Your task to perform on an android device: turn on showing notifications on the lock screen Image 0: 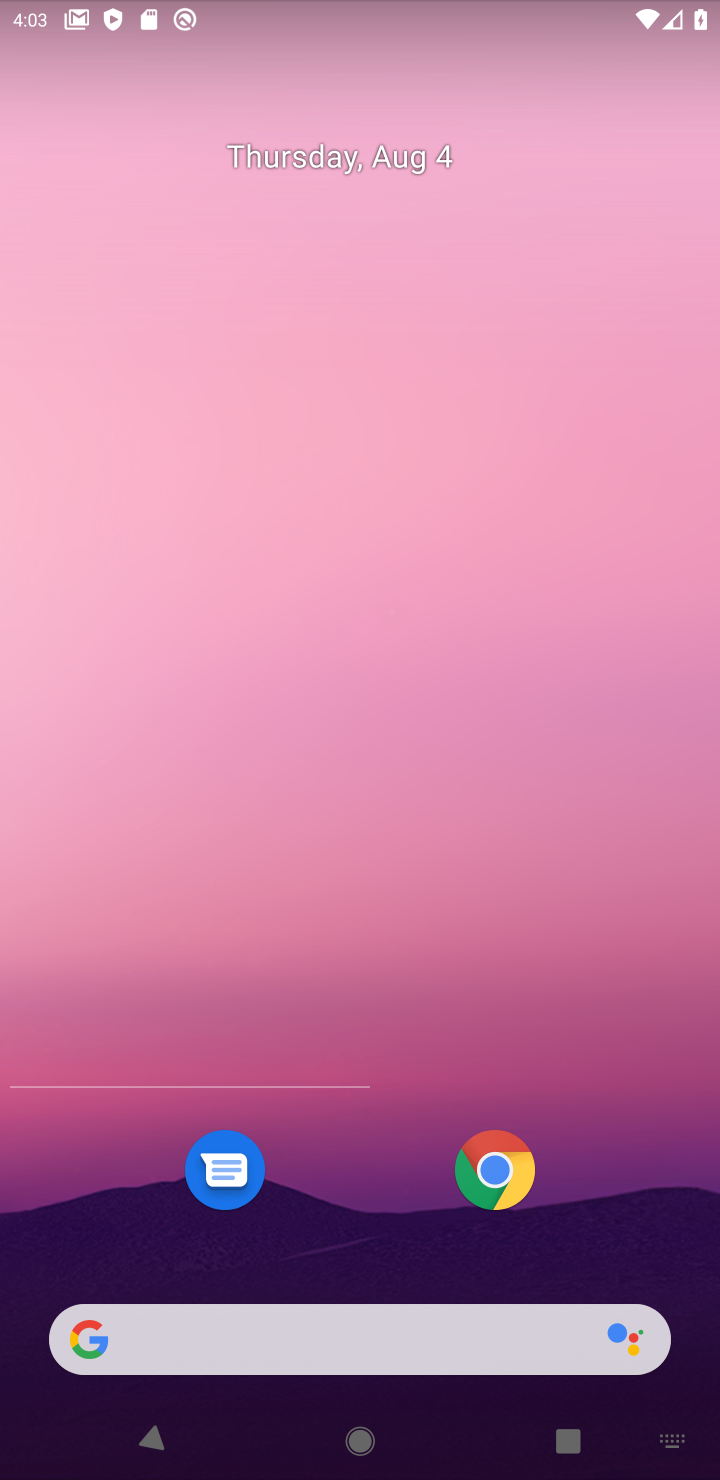
Step 0: click (553, 16)
Your task to perform on an android device: turn on showing notifications on the lock screen Image 1: 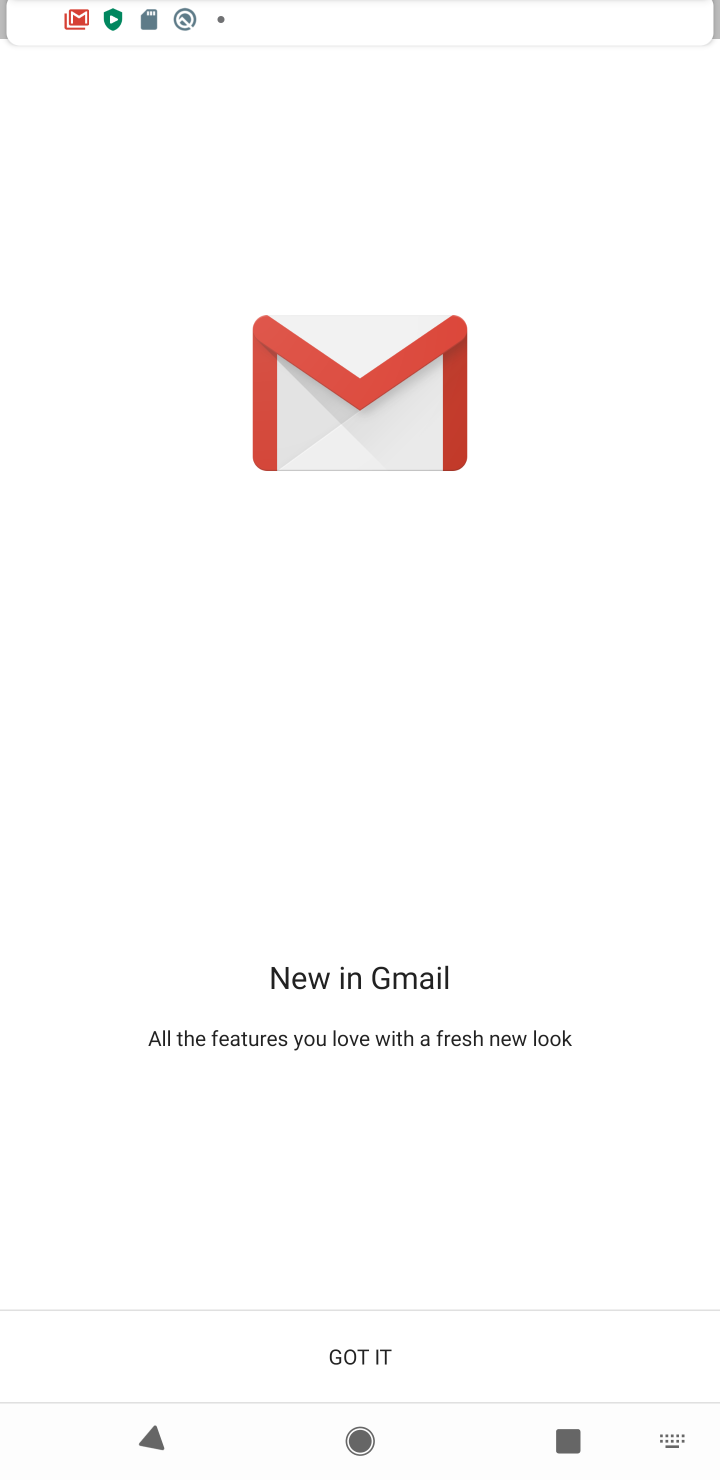
Step 1: press home button
Your task to perform on an android device: turn on showing notifications on the lock screen Image 2: 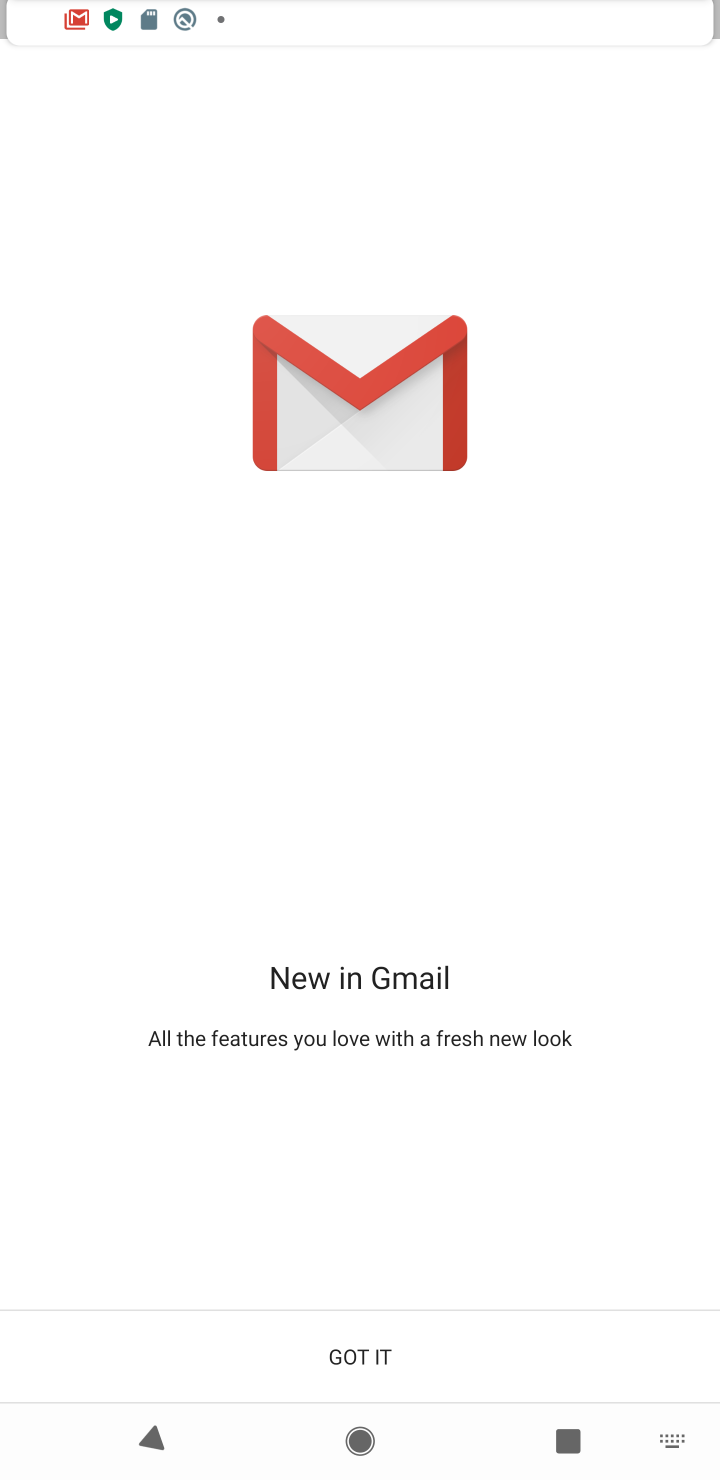
Step 2: drag from (553, 16) to (662, 1178)
Your task to perform on an android device: turn on showing notifications on the lock screen Image 3: 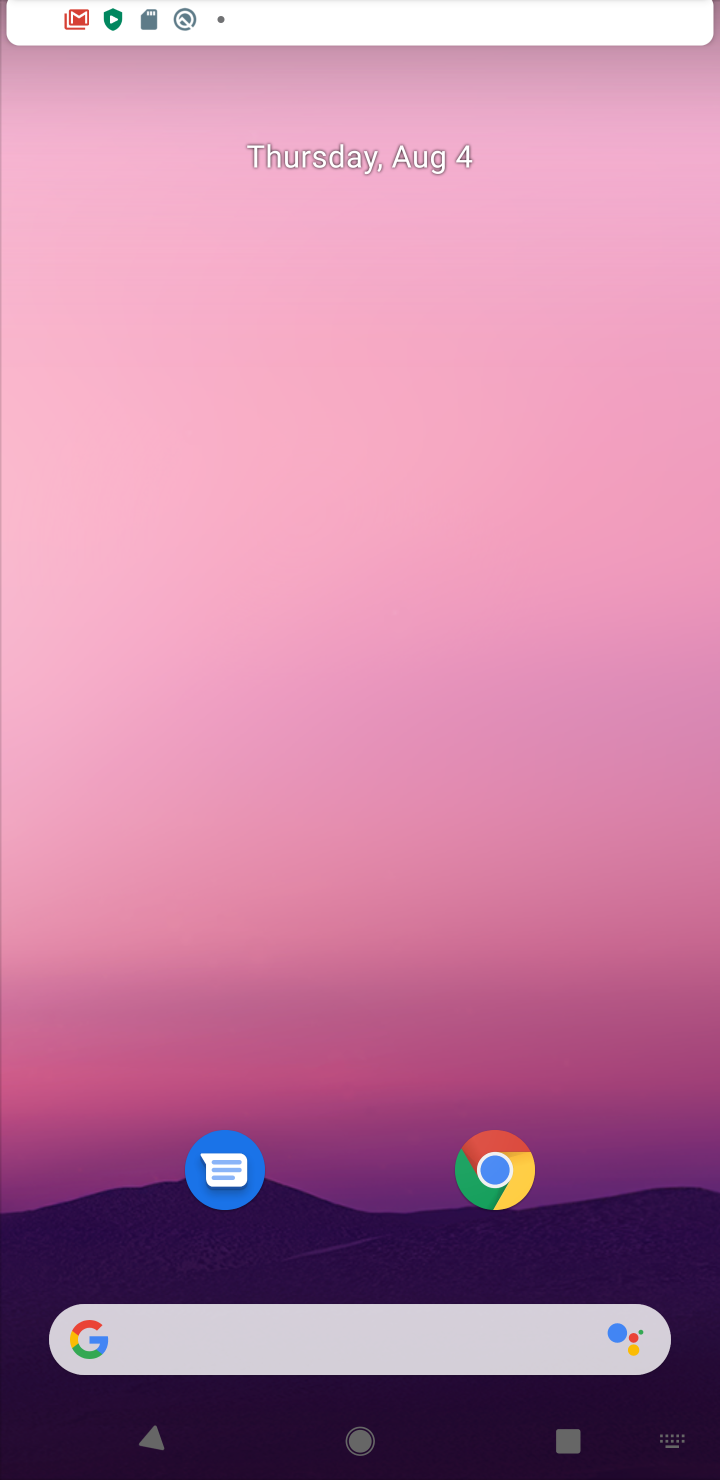
Step 3: drag from (592, 1191) to (429, 220)
Your task to perform on an android device: turn on showing notifications on the lock screen Image 4: 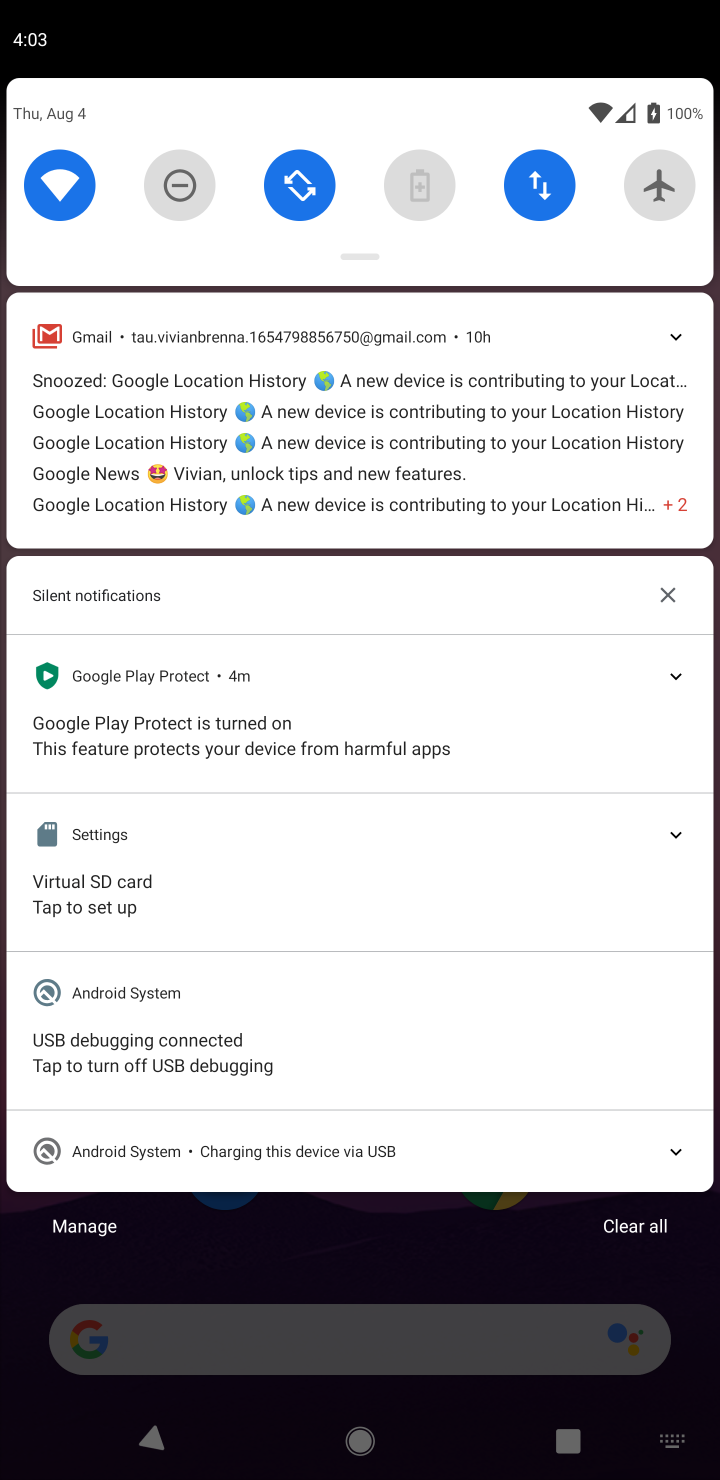
Step 4: press back button
Your task to perform on an android device: turn on showing notifications on the lock screen Image 5: 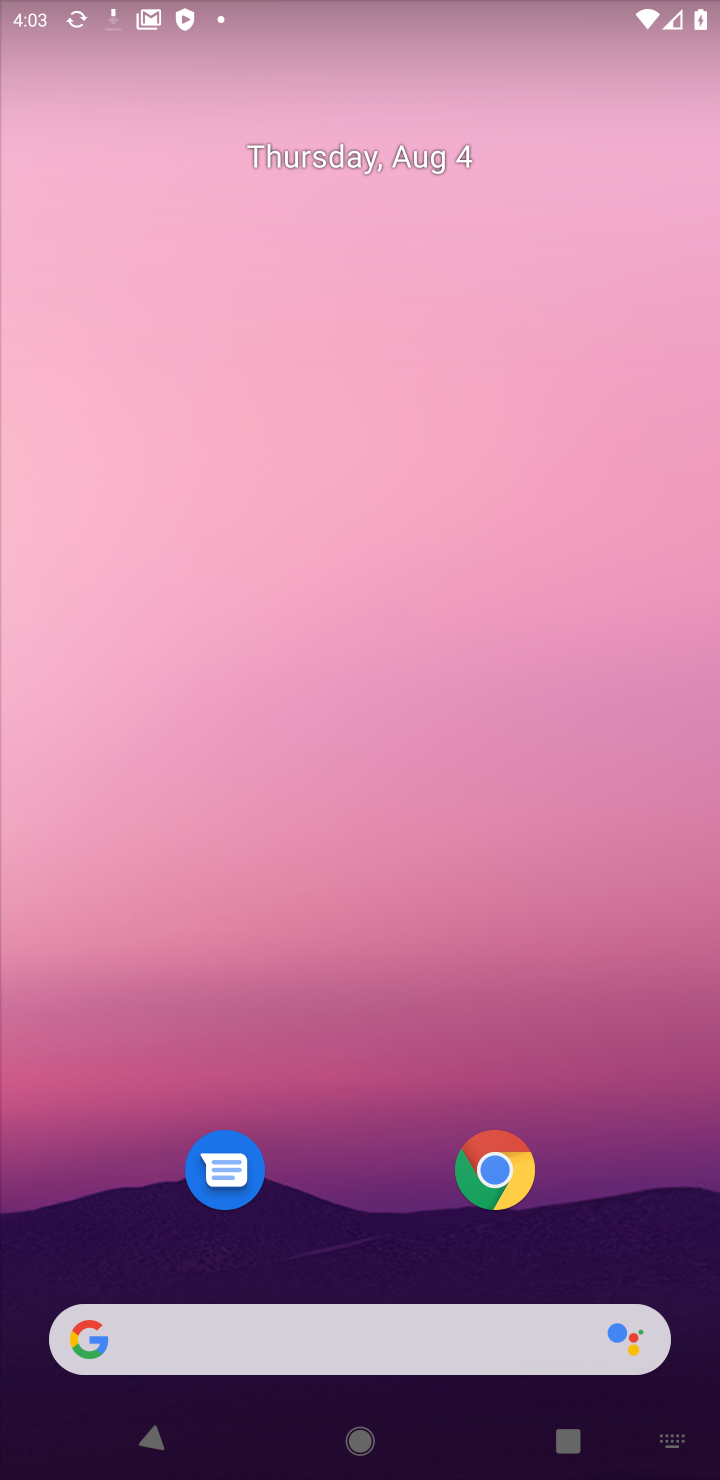
Step 5: drag from (609, 1161) to (476, 0)
Your task to perform on an android device: turn on showing notifications on the lock screen Image 6: 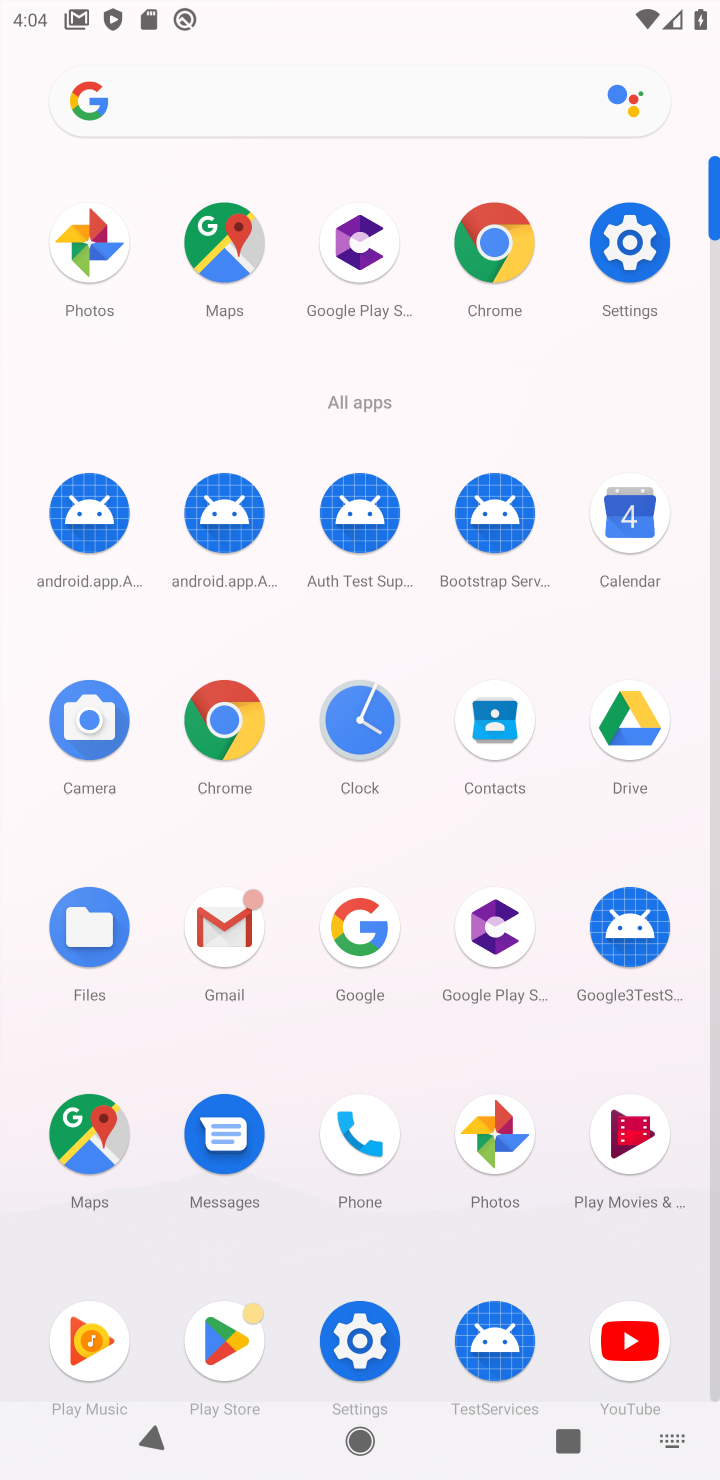
Step 6: click (651, 252)
Your task to perform on an android device: turn on showing notifications on the lock screen Image 7: 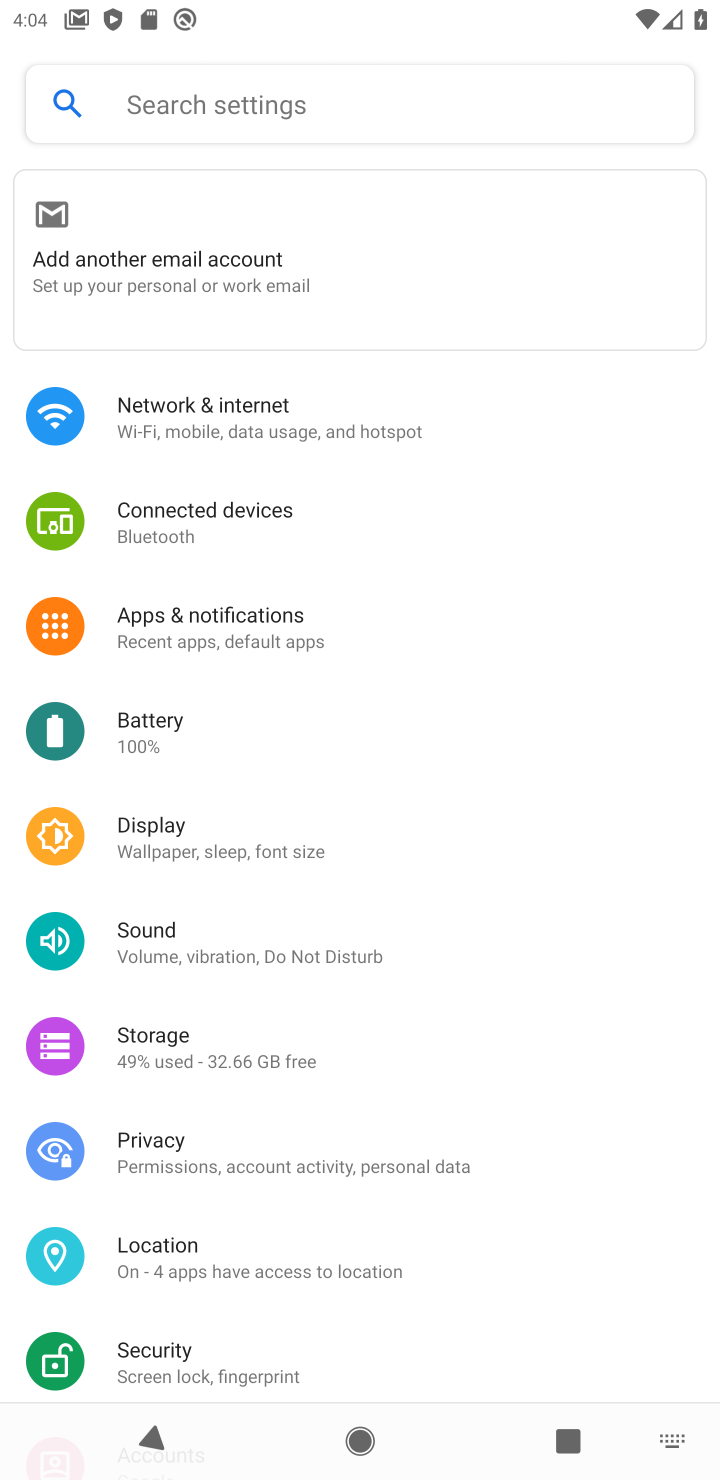
Step 7: click (371, 612)
Your task to perform on an android device: turn on showing notifications on the lock screen Image 8: 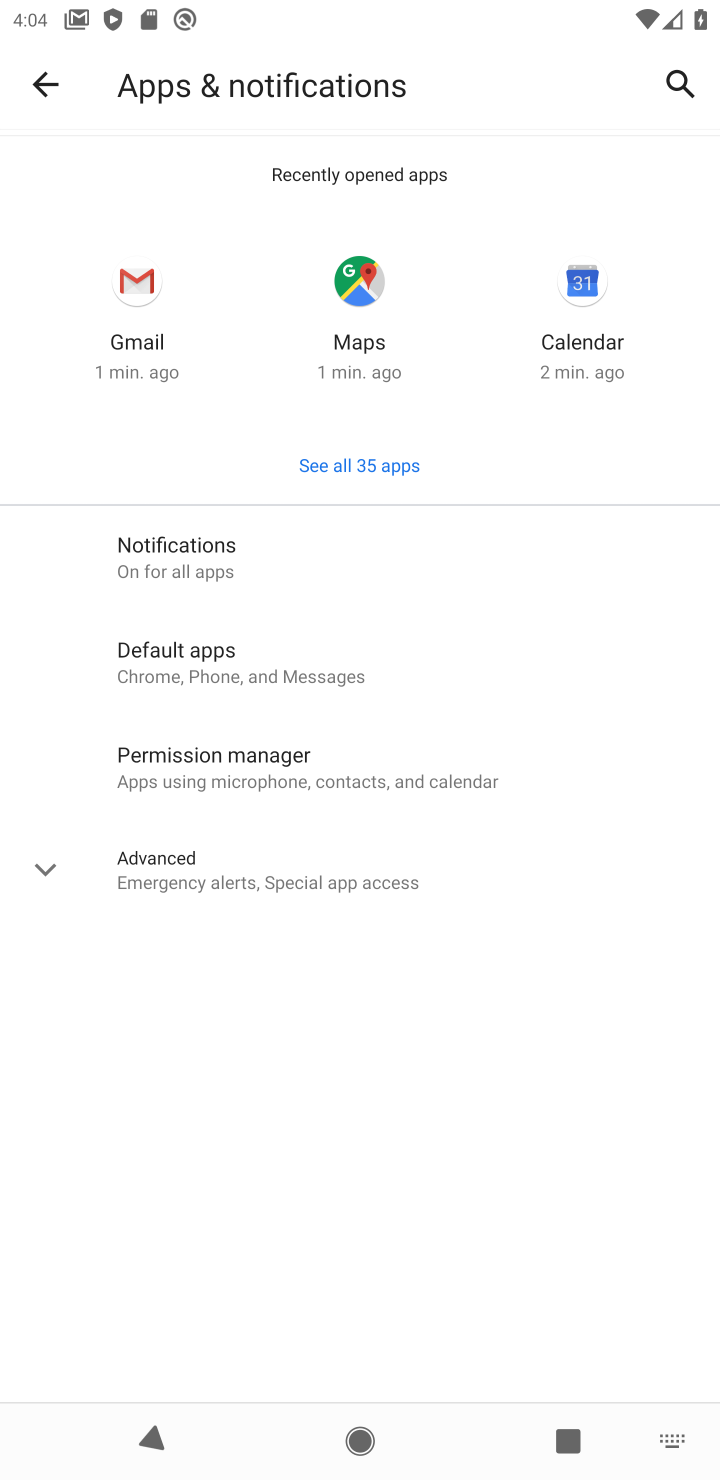
Step 8: click (290, 558)
Your task to perform on an android device: turn on showing notifications on the lock screen Image 9: 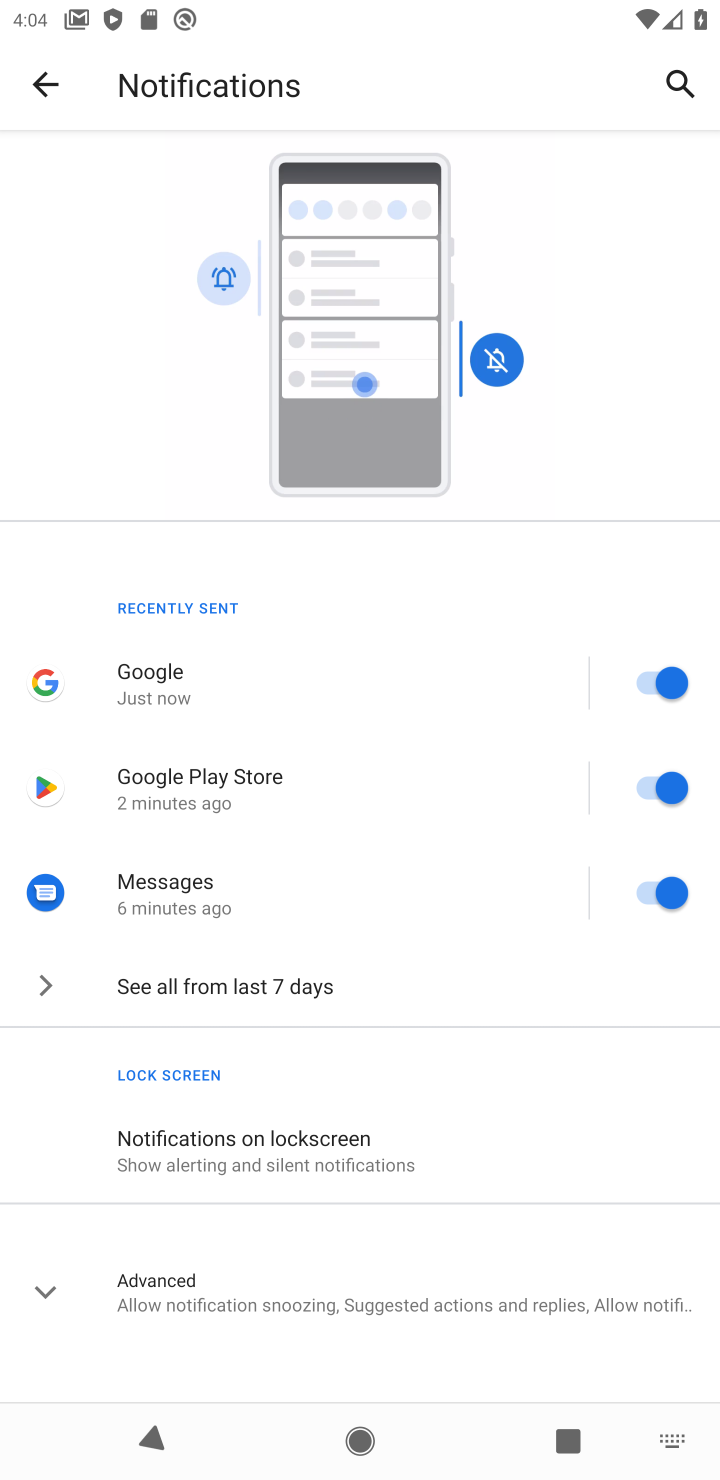
Step 9: click (358, 1166)
Your task to perform on an android device: turn on showing notifications on the lock screen Image 10: 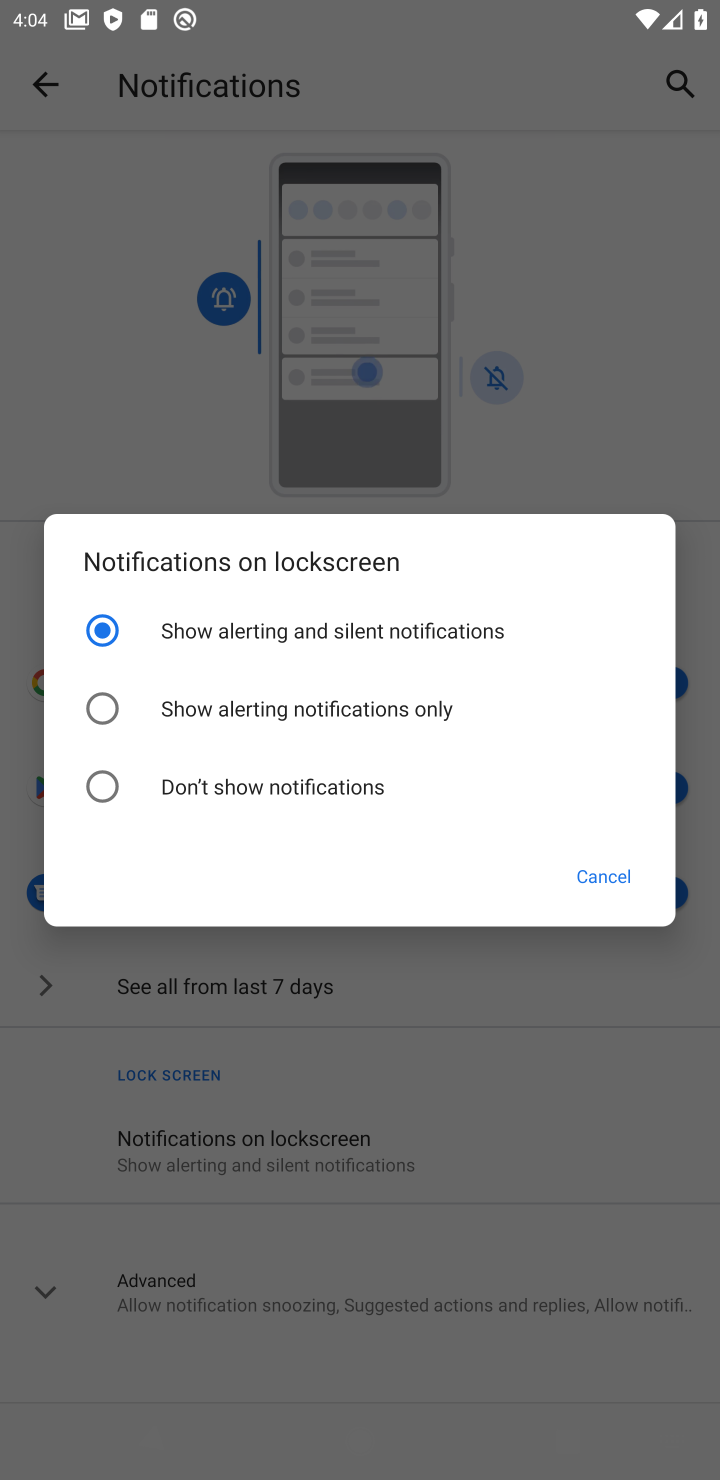
Step 10: task complete